Your task to perform on an android device: Go to Yahoo.com Image 0: 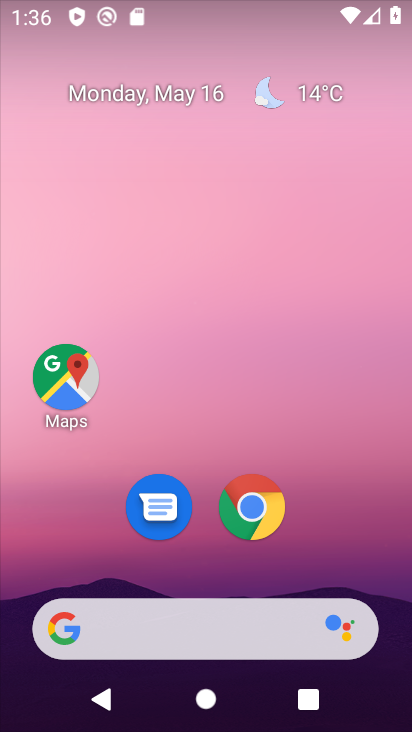
Step 0: click (250, 495)
Your task to perform on an android device: Go to Yahoo.com Image 1: 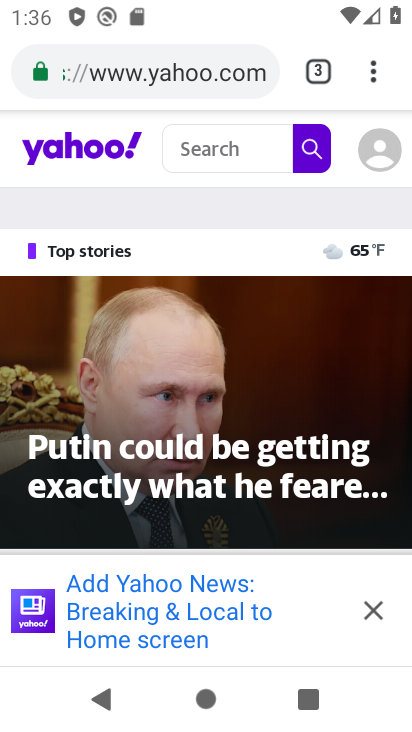
Step 1: task complete